Your task to perform on an android device: Open the calendar and show me this week's events? Image 0: 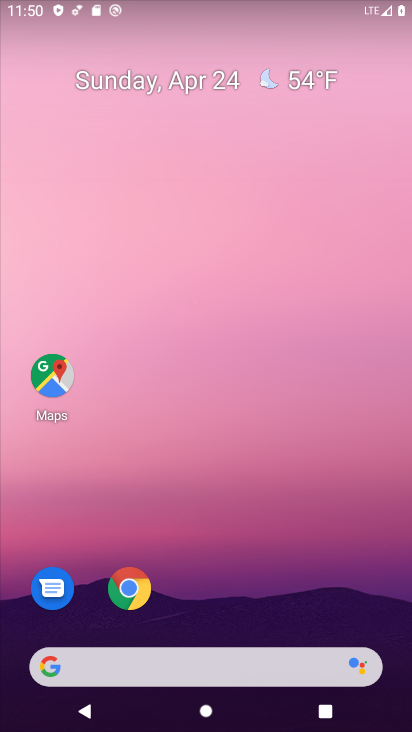
Step 0: drag from (202, 629) to (244, 128)
Your task to perform on an android device: Open the calendar and show me this week's events? Image 1: 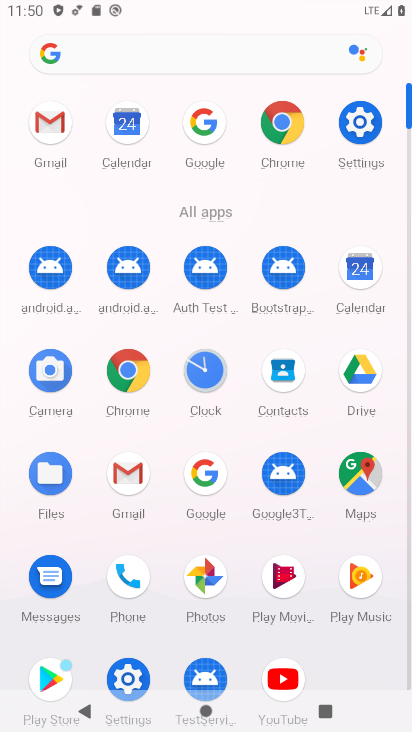
Step 1: click (348, 272)
Your task to perform on an android device: Open the calendar and show me this week's events? Image 2: 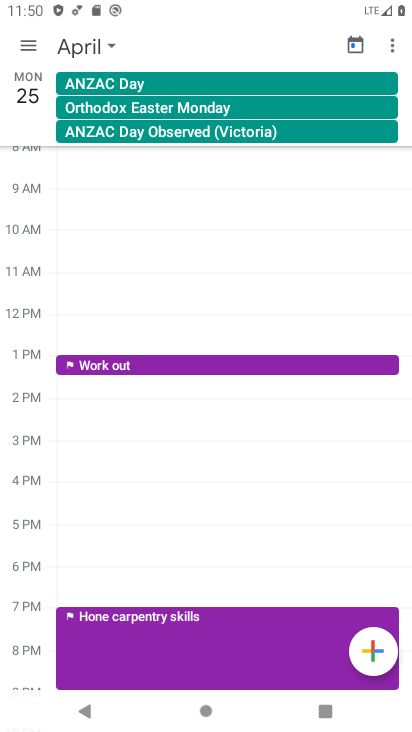
Step 2: click (30, 44)
Your task to perform on an android device: Open the calendar and show me this week's events? Image 3: 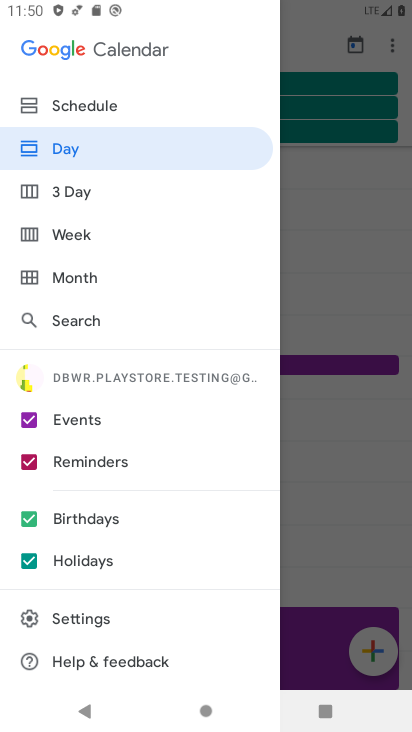
Step 3: click (81, 208)
Your task to perform on an android device: Open the calendar and show me this week's events? Image 4: 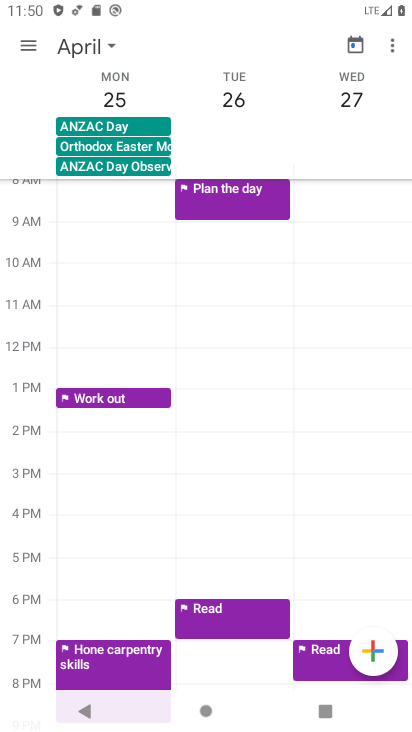
Step 4: click (38, 44)
Your task to perform on an android device: Open the calendar and show me this week's events? Image 5: 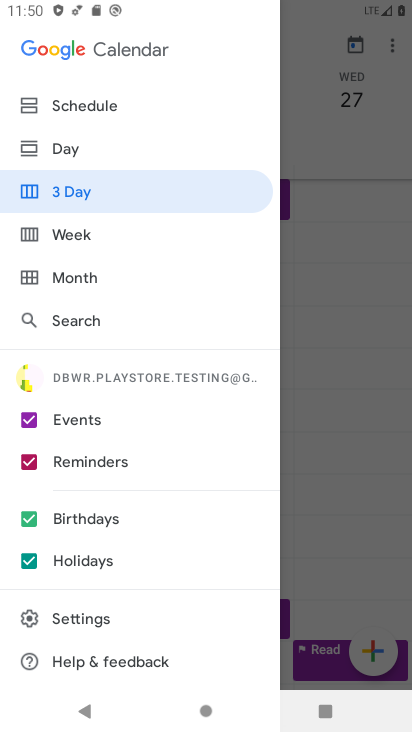
Step 5: click (107, 225)
Your task to perform on an android device: Open the calendar and show me this week's events? Image 6: 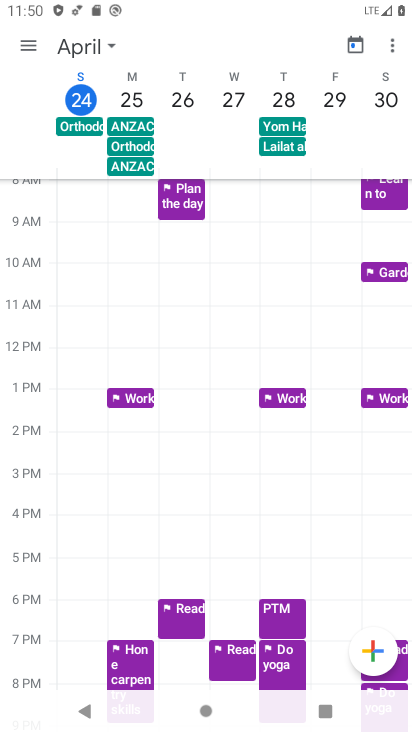
Step 6: task complete